Your task to perform on an android device: Open display settings Image 0: 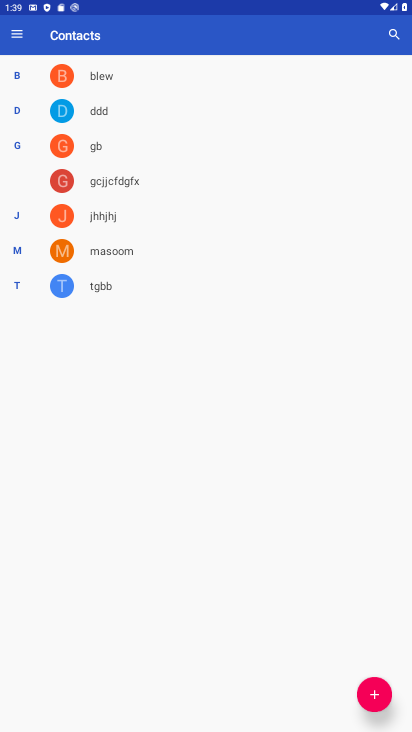
Step 0: press home button
Your task to perform on an android device: Open display settings Image 1: 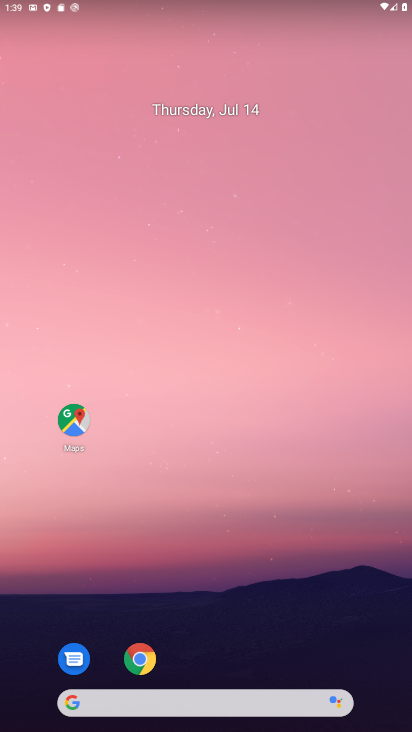
Step 1: drag from (230, 626) to (206, 3)
Your task to perform on an android device: Open display settings Image 2: 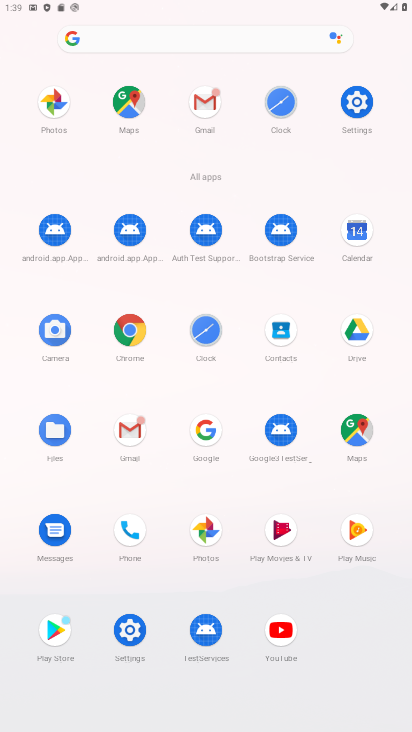
Step 2: click (360, 109)
Your task to perform on an android device: Open display settings Image 3: 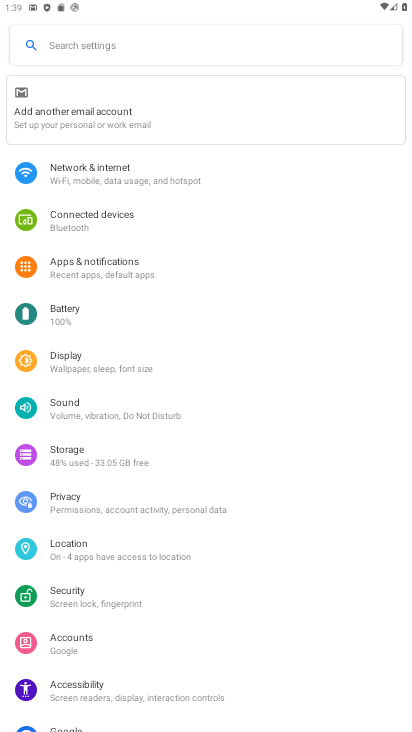
Step 3: click (164, 367)
Your task to perform on an android device: Open display settings Image 4: 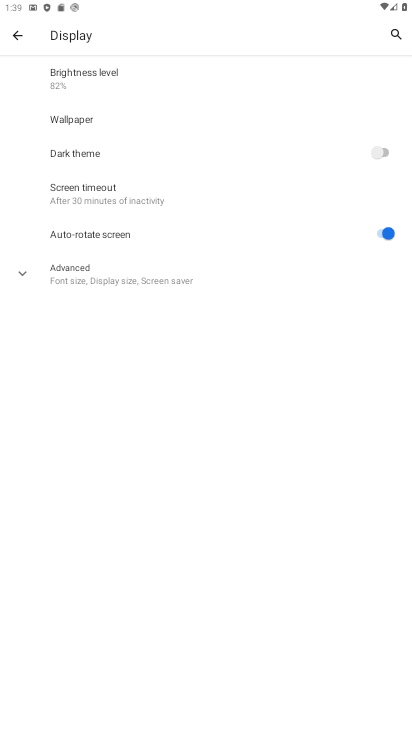
Step 4: task complete